Your task to perform on an android device: toggle pop-ups in chrome Image 0: 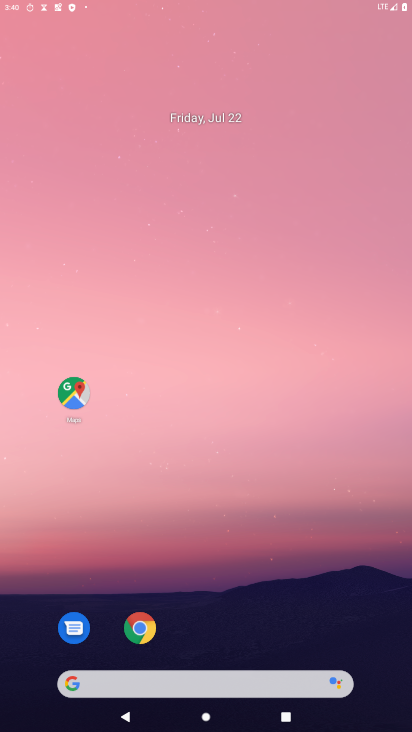
Step 0: click (216, 82)
Your task to perform on an android device: toggle pop-ups in chrome Image 1: 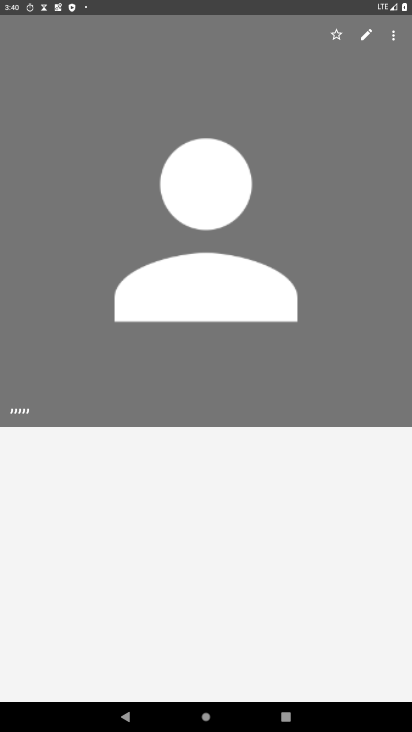
Step 1: press home button
Your task to perform on an android device: toggle pop-ups in chrome Image 2: 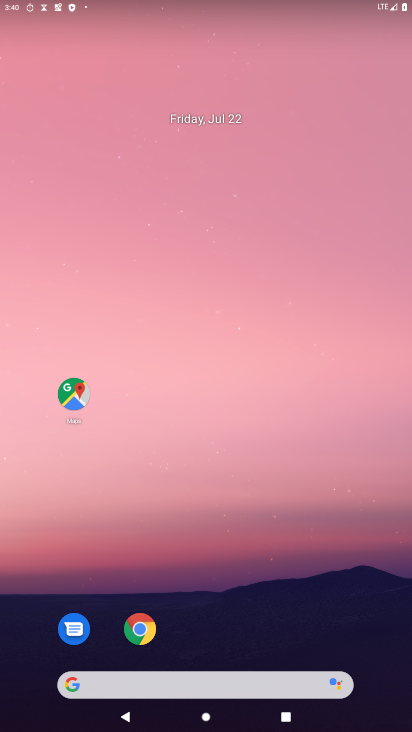
Step 2: drag from (207, 687) to (237, 1)
Your task to perform on an android device: toggle pop-ups in chrome Image 3: 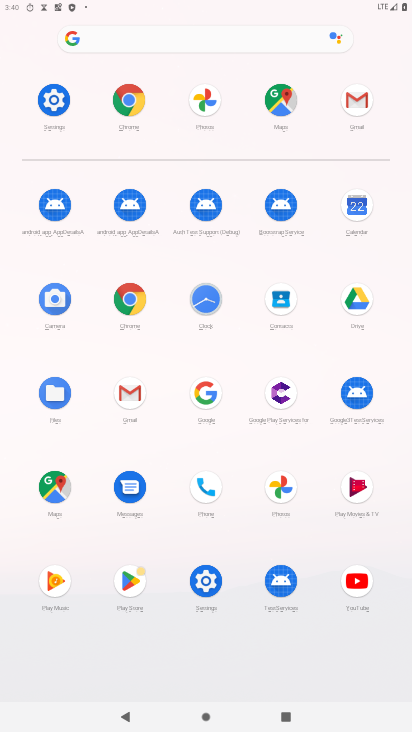
Step 3: click (125, 295)
Your task to perform on an android device: toggle pop-ups in chrome Image 4: 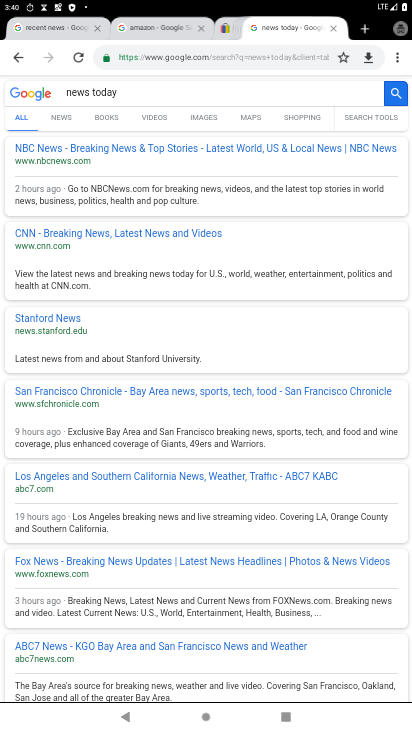
Step 4: drag from (395, 61) to (295, 349)
Your task to perform on an android device: toggle pop-ups in chrome Image 5: 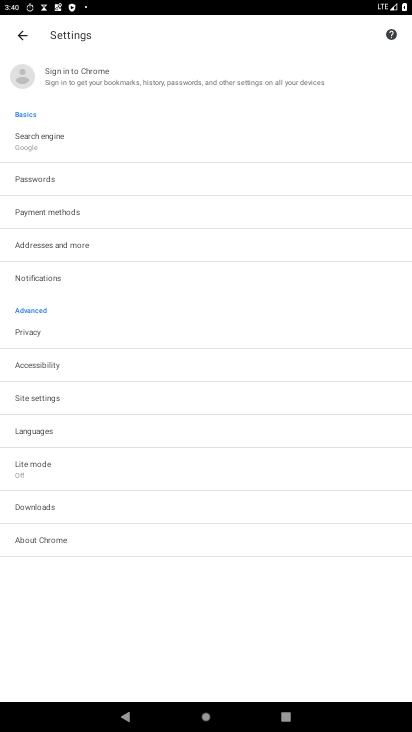
Step 5: click (53, 393)
Your task to perform on an android device: toggle pop-ups in chrome Image 6: 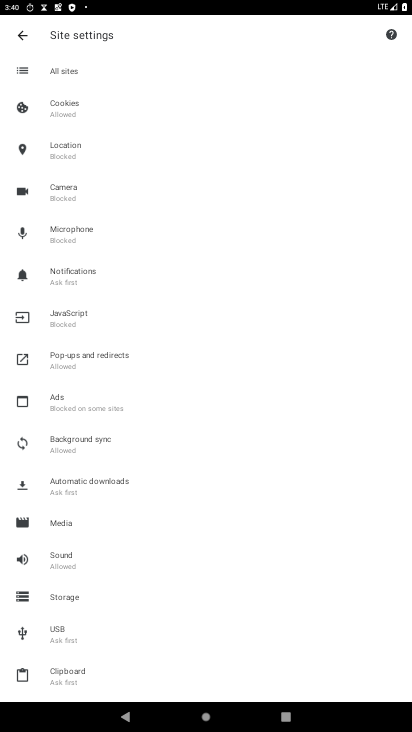
Step 6: click (40, 359)
Your task to perform on an android device: toggle pop-ups in chrome Image 7: 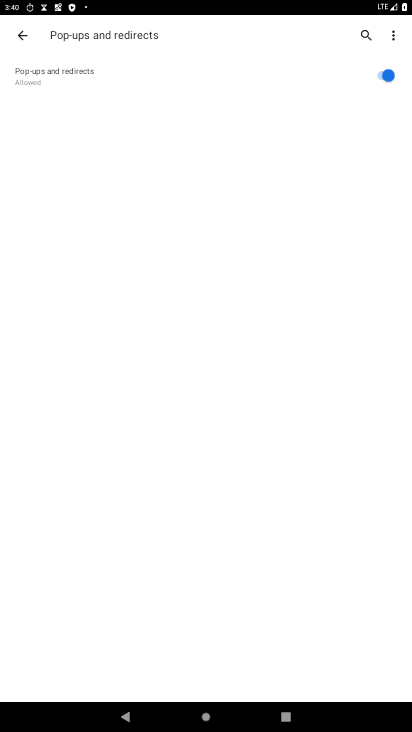
Step 7: click (383, 74)
Your task to perform on an android device: toggle pop-ups in chrome Image 8: 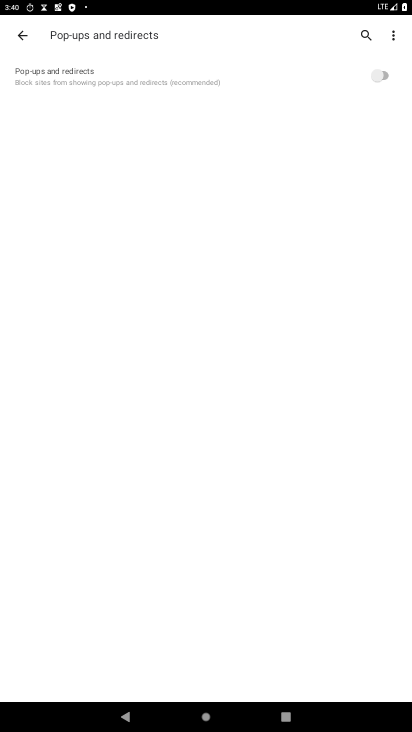
Step 8: task complete